Your task to perform on an android device: Open the map Image 0: 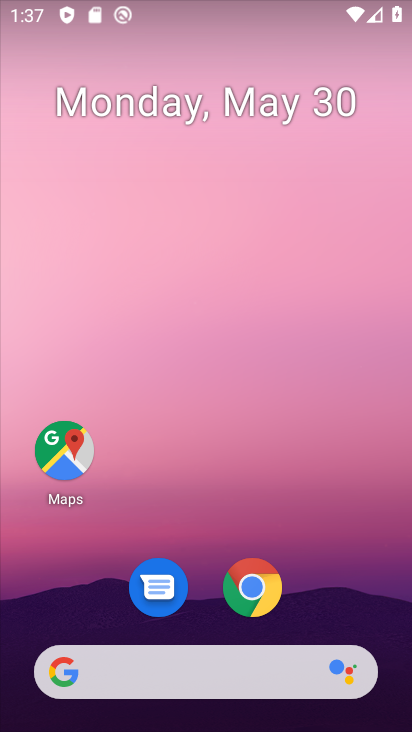
Step 0: click (245, 608)
Your task to perform on an android device: Open the map Image 1: 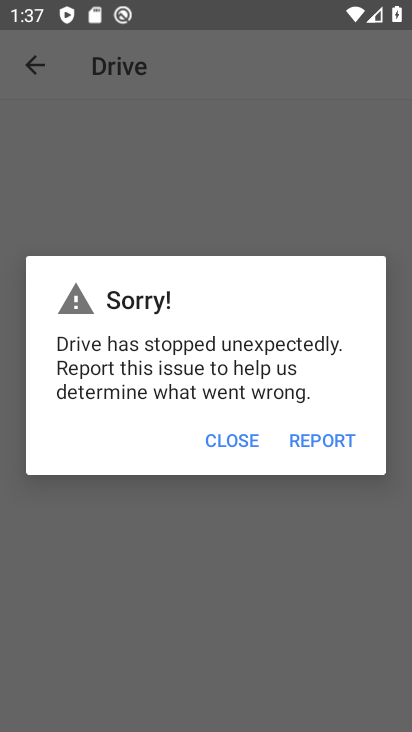
Step 1: press home button
Your task to perform on an android device: Open the map Image 2: 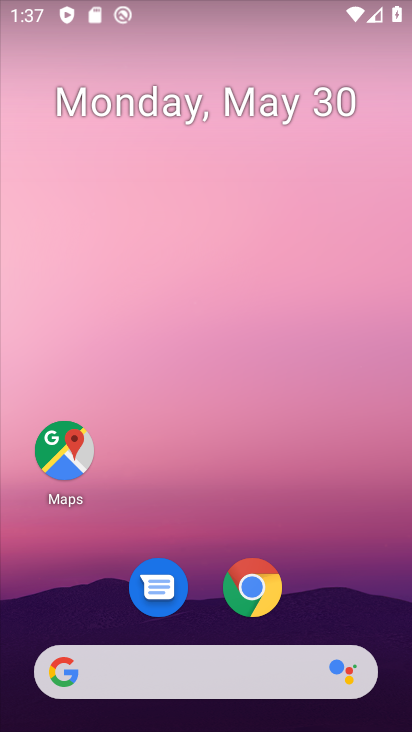
Step 2: click (63, 445)
Your task to perform on an android device: Open the map Image 3: 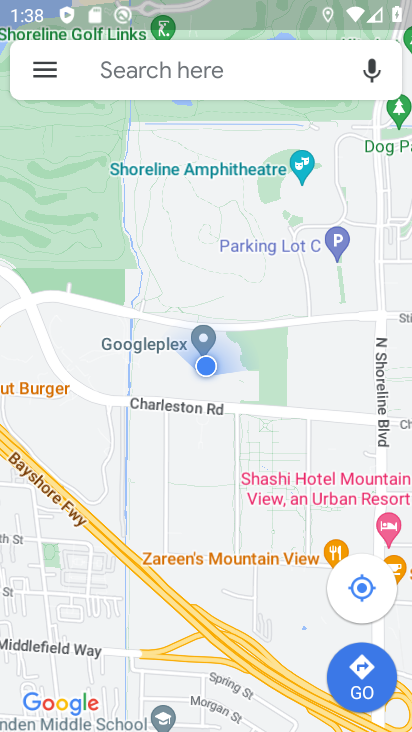
Step 3: task complete